Your task to perform on an android device: Open Youtube and go to the subscriptions tab Image 0: 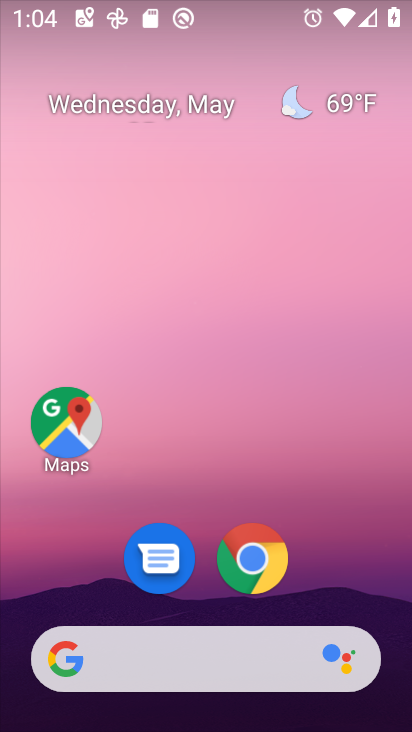
Step 0: drag from (399, 670) to (261, 43)
Your task to perform on an android device: Open Youtube and go to the subscriptions tab Image 1: 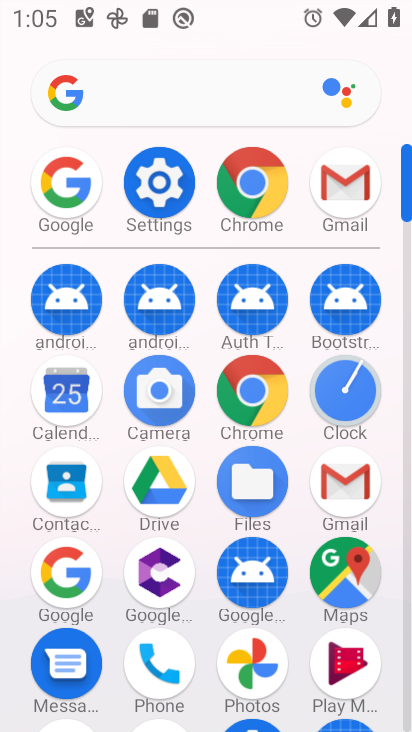
Step 1: drag from (298, 698) to (291, 141)
Your task to perform on an android device: Open Youtube and go to the subscriptions tab Image 2: 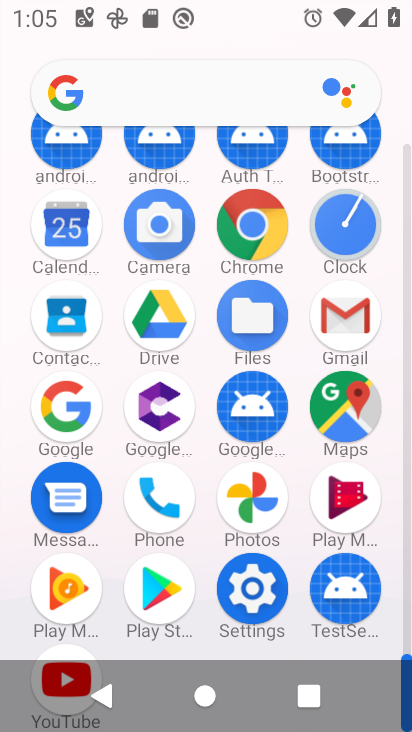
Step 2: click (73, 645)
Your task to perform on an android device: Open Youtube and go to the subscriptions tab Image 3: 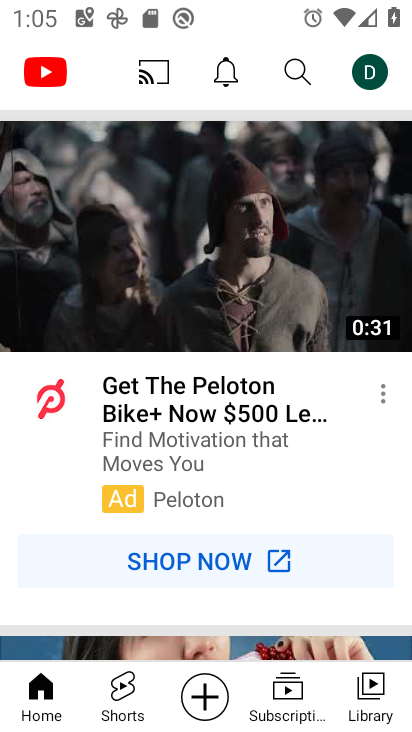
Step 3: click (279, 692)
Your task to perform on an android device: Open Youtube and go to the subscriptions tab Image 4: 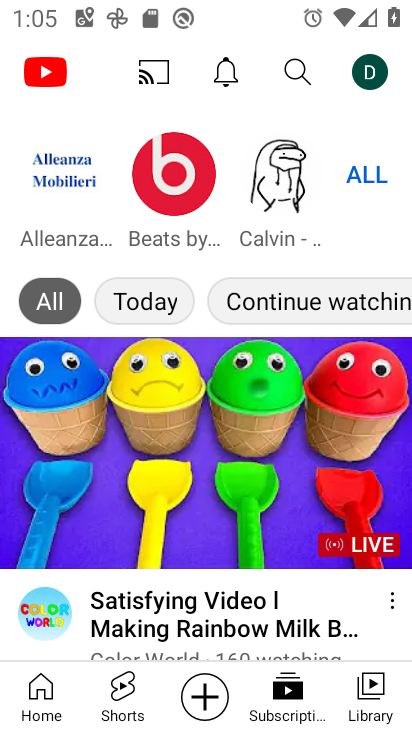
Step 4: task complete